Your task to perform on an android device: stop showing notifications on the lock screen Image 0: 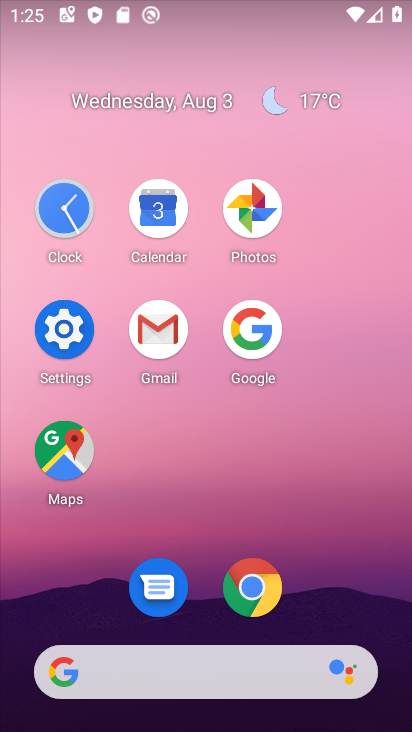
Step 0: click (72, 325)
Your task to perform on an android device: stop showing notifications on the lock screen Image 1: 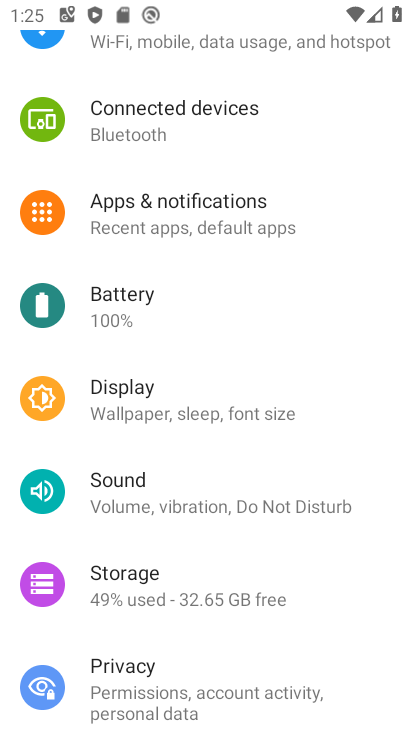
Step 1: drag from (220, 511) to (296, 180)
Your task to perform on an android device: stop showing notifications on the lock screen Image 2: 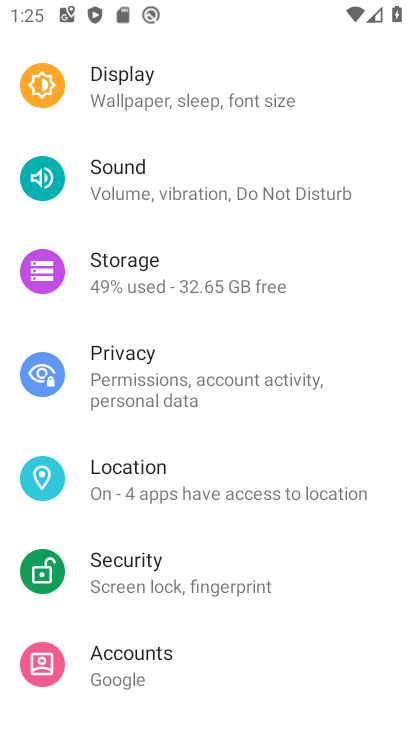
Step 2: drag from (296, 180) to (278, 545)
Your task to perform on an android device: stop showing notifications on the lock screen Image 3: 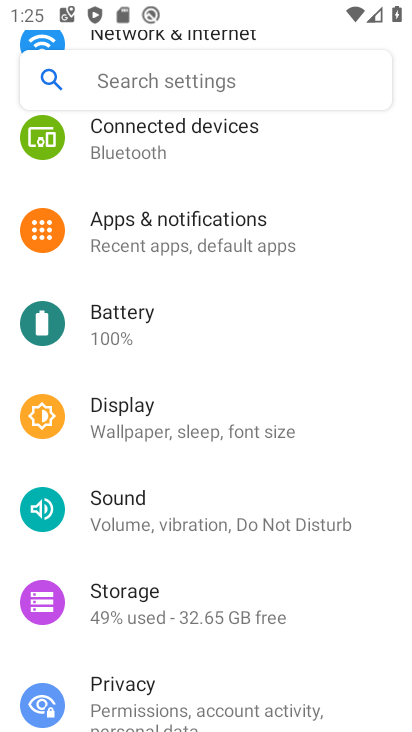
Step 3: click (248, 251)
Your task to perform on an android device: stop showing notifications on the lock screen Image 4: 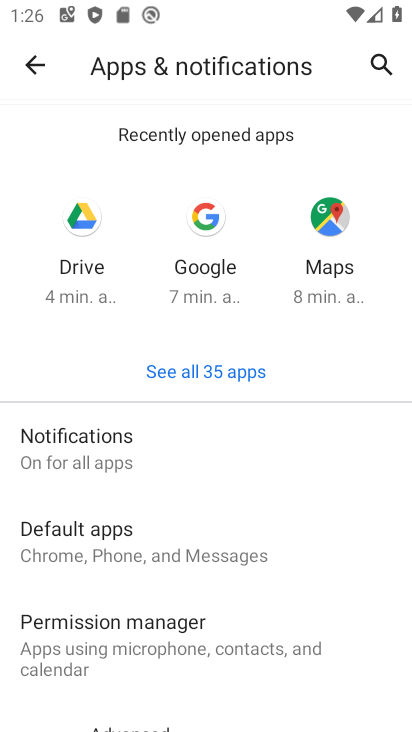
Step 4: click (186, 449)
Your task to perform on an android device: stop showing notifications on the lock screen Image 5: 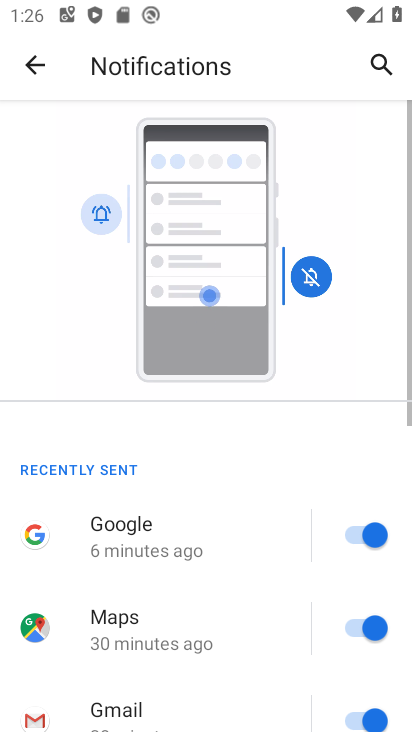
Step 5: drag from (216, 521) to (261, 190)
Your task to perform on an android device: stop showing notifications on the lock screen Image 6: 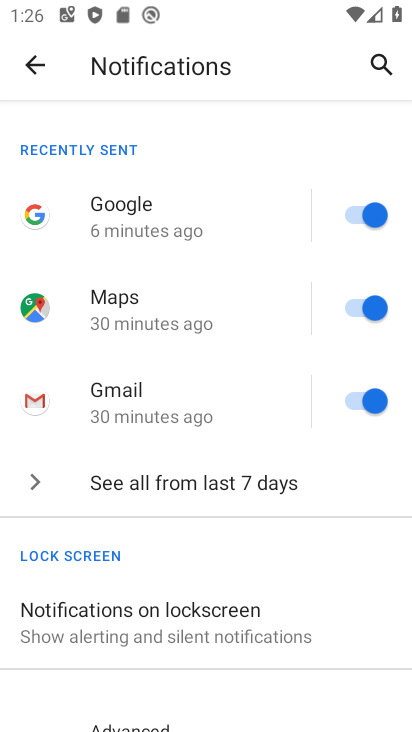
Step 6: drag from (212, 496) to (275, 157)
Your task to perform on an android device: stop showing notifications on the lock screen Image 7: 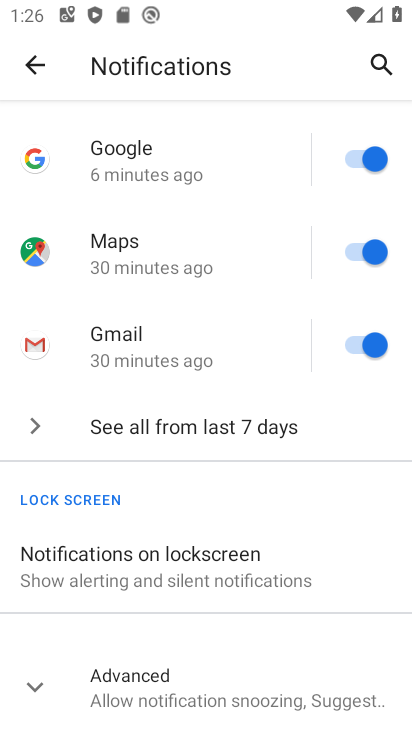
Step 7: click (199, 573)
Your task to perform on an android device: stop showing notifications on the lock screen Image 8: 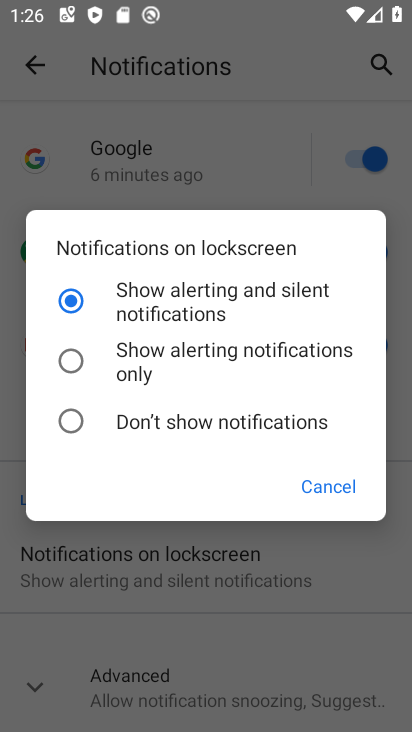
Step 8: click (159, 382)
Your task to perform on an android device: stop showing notifications on the lock screen Image 9: 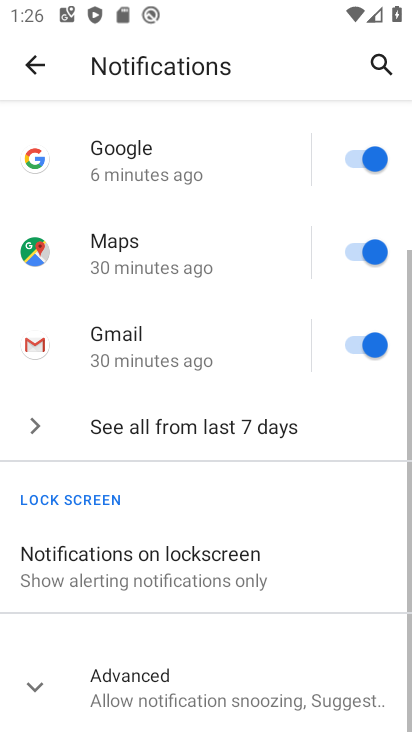
Step 9: task complete